Your task to perform on an android device: turn on bluetooth scan Image 0: 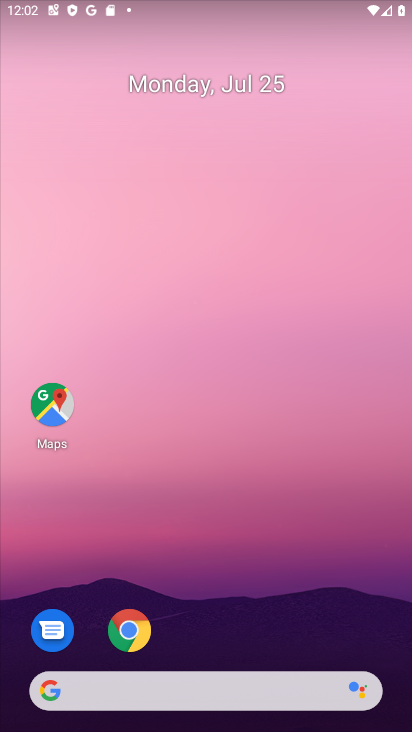
Step 0: press home button
Your task to perform on an android device: turn on bluetooth scan Image 1: 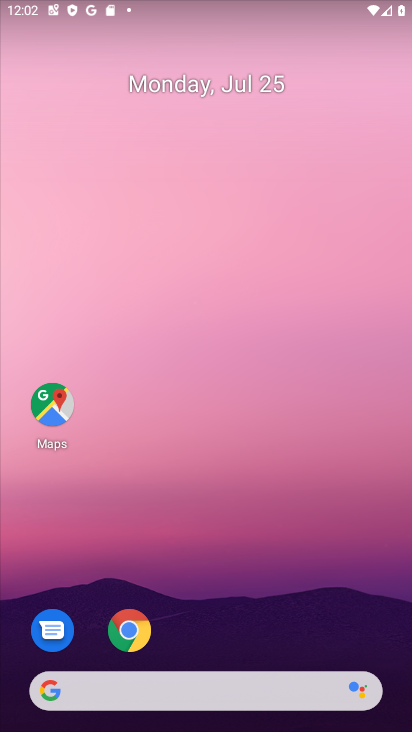
Step 1: drag from (218, 598) to (183, 272)
Your task to perform on an android device: turn on bluetooth scan Image 2: 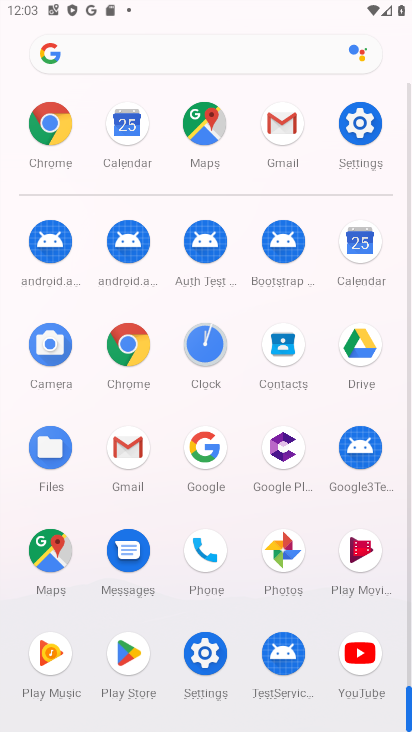
Step 2: click (195, 660)
Your task to perform on an android device: turn on bluetooth scan Image 3: 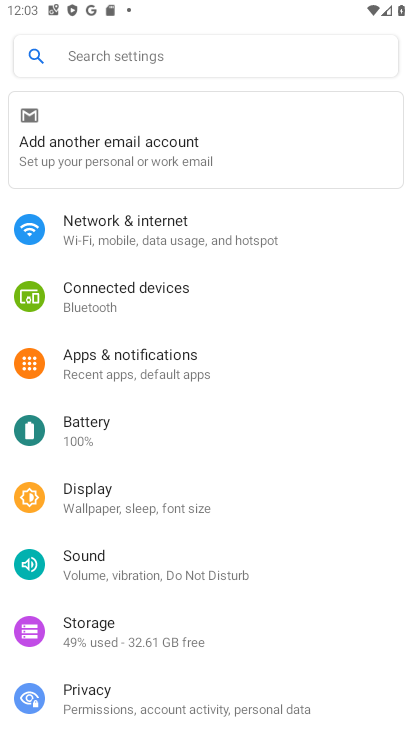
Step 3: drag from (225, 420) to (289, 148)
Your task to perform on an android device: turn on bluetooth scan Image 4: 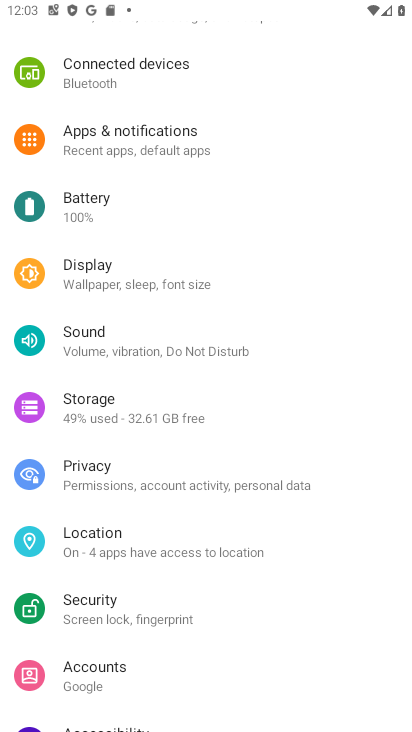
Step 4: click (137, 550)
Your task to perform on an android device: turn on bluetooth scan Image 5: 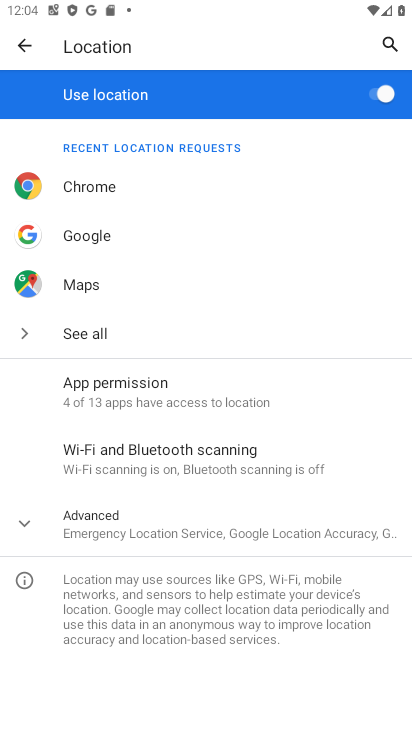
Step 5: click (243, 446)
Your task to perform on an android device: turn on bluetooth scan Image 6: 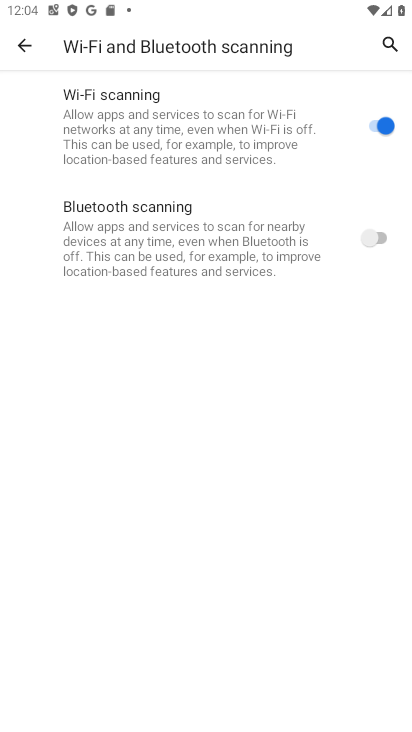
Step 6: click (224, 256)
Your task to perform on an android device: turn on bluetooth scan Image 7: 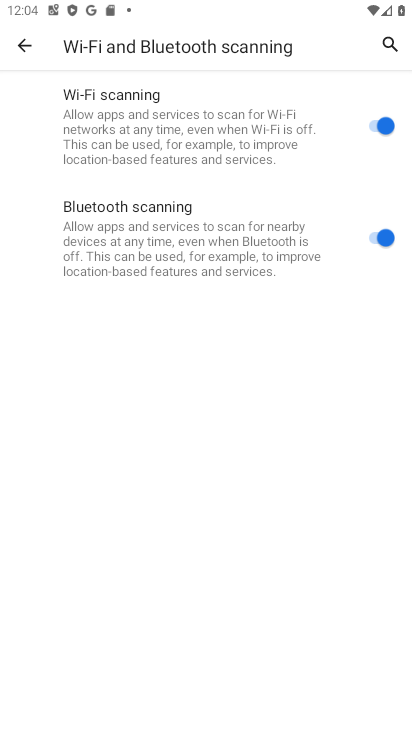
Step 7: task complete